Your task to perform on an android device: Open Chrome and go to settings Image 0: 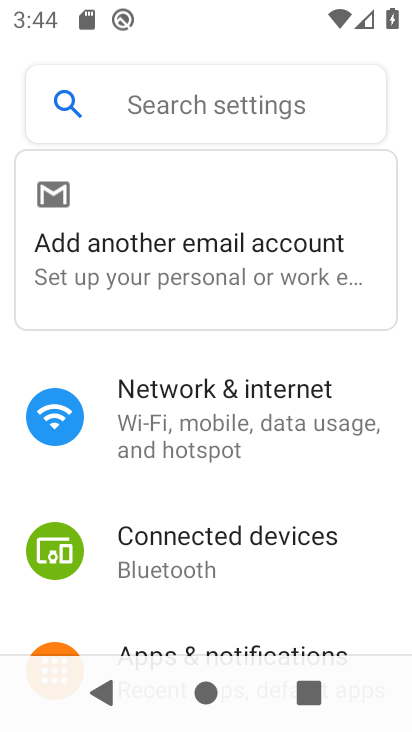
Step 0: press home button
Your task to perform on an android device: Open Chrome and go to settings Image 1: 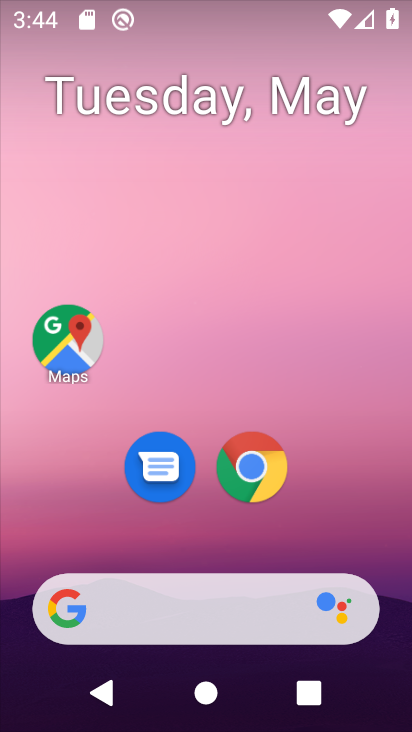
Step 1: drag from (249, 554) to (209, 138)
Your task to perform on an android device: Open Chrome and go to settings Image 2: 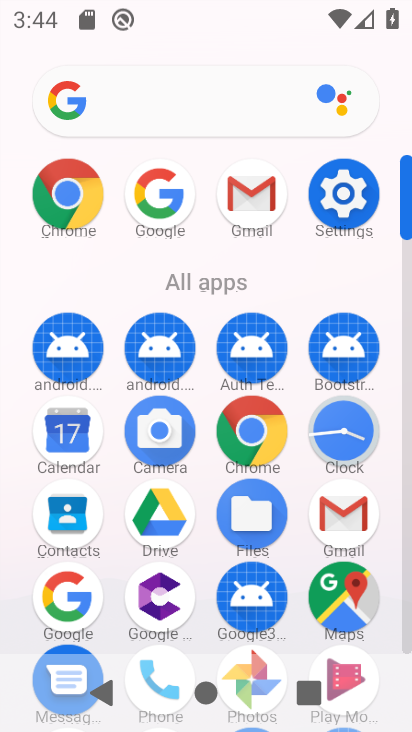
Step 2: click (342, 189)
Your task to perform on an android device: Open Chrome and go to settings Image 3: 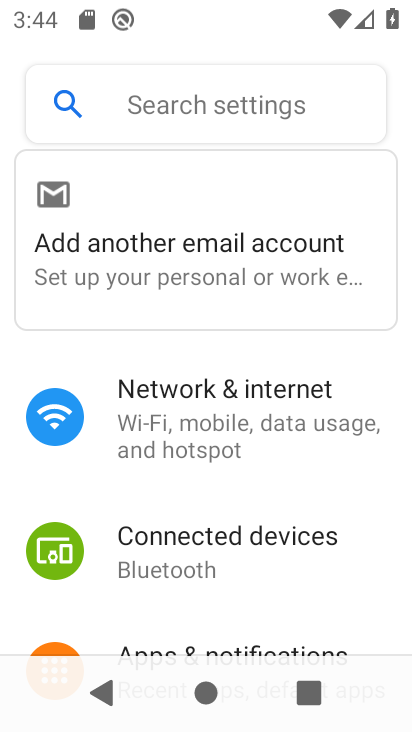
Step 3: drag from (248, 565) to (200, 192)
Your task to perform on an android device: Open Chrome and go to settings Image 4: 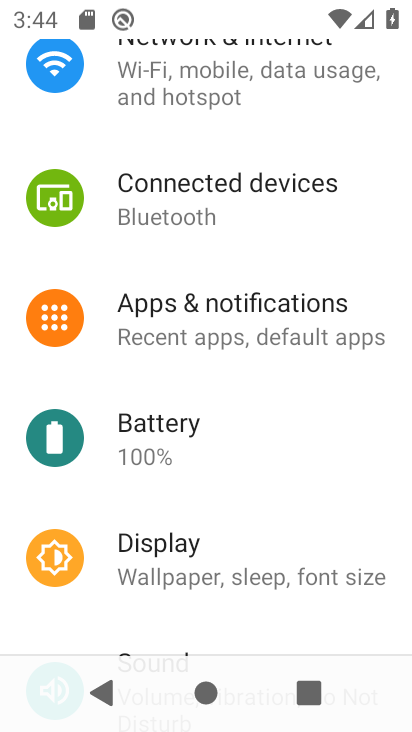
Step 4: press back button
Your task to perform on an android device: Open Chrome and go to settings Image 5: 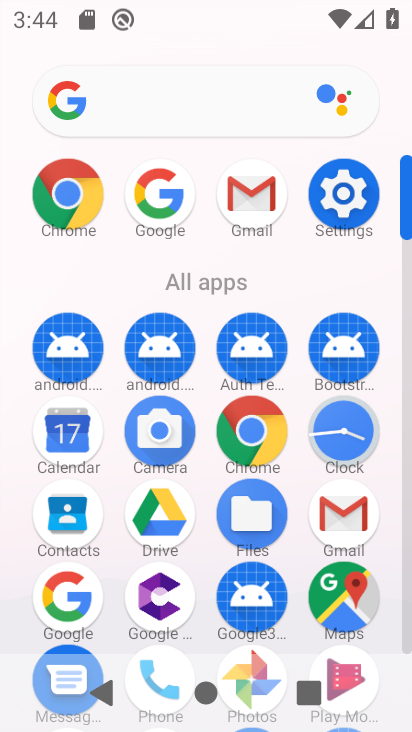
Step 5: click (92, 183)
Your task to perform on an android device: Open Chrome and go to settings Image 6: 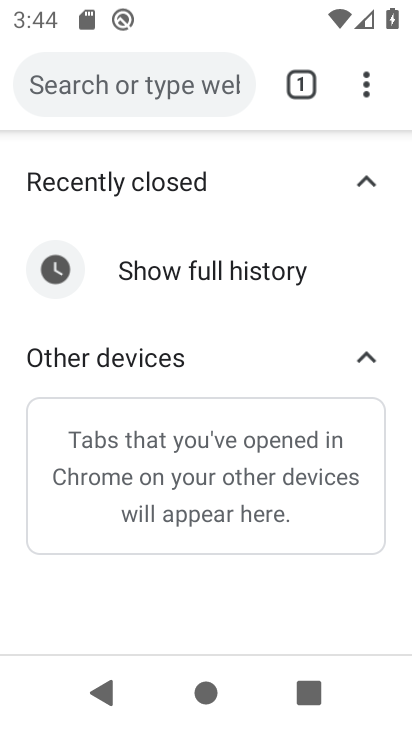
Step 6: click (369, 74)
Your task to perform on an android device: Open Chrome and go to settings Image 7: 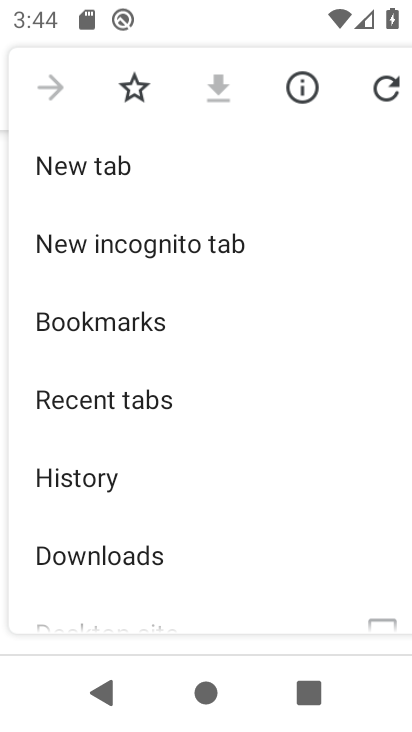
Step 7: drag from (145, 535) to (95, 201)
Your task to perform on an android device: Open Chrome and go to settings Image 8: 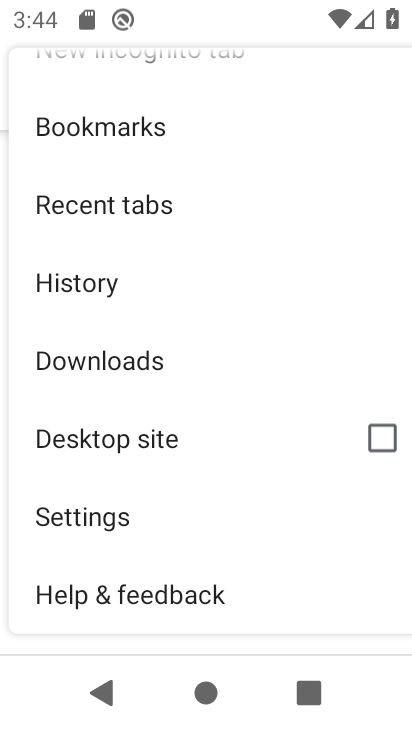
Step 8: click (102, 515)
Your task to perform on an android device: Open Chrome and go to settings Image 9: 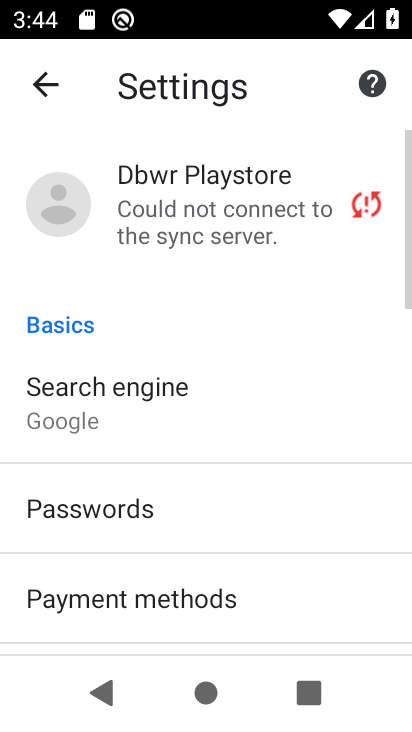
Step 9: task complete